Your task to perform on an android device: Open Chrome and go to settings Image 0: 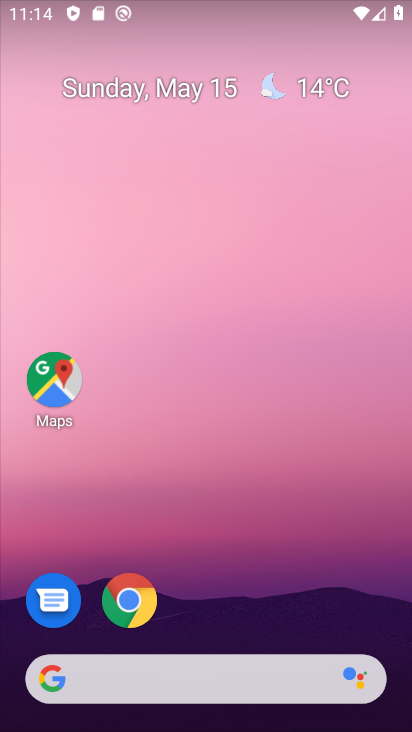
Step 0: click (129, 604)
Your task to perform on an android device: Open Chrome and go to settings Image 1: 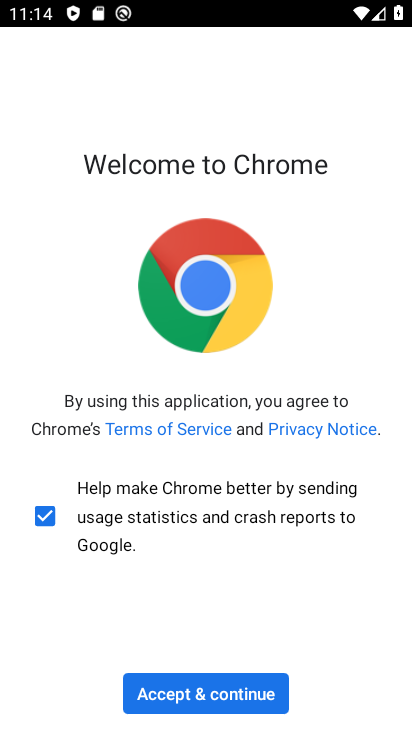
Step 1: click (206, 690)
Your task to perform on an android device: Open Chrome and go to settings Image 2: 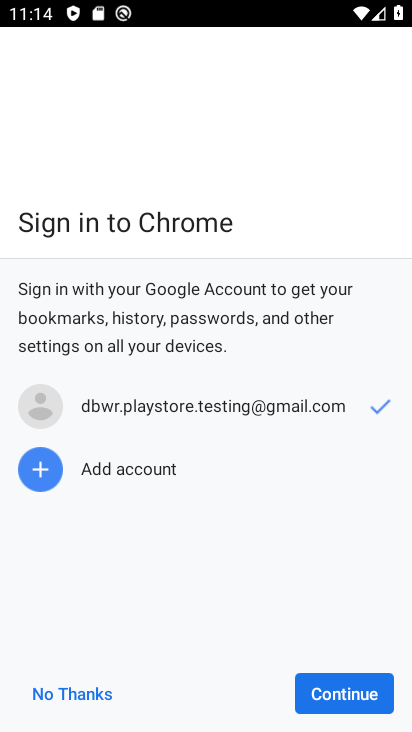
Step 2: click (344, 694)
Your task to perform on an android device: Open Chrome and go to settings Image 3: 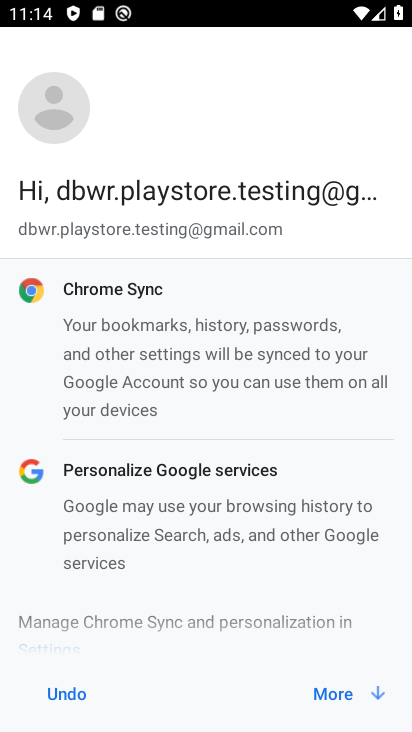
Step 3: click (344, 694)
Your task to perform on an android device: Open Chrome and go to settings Image 4: 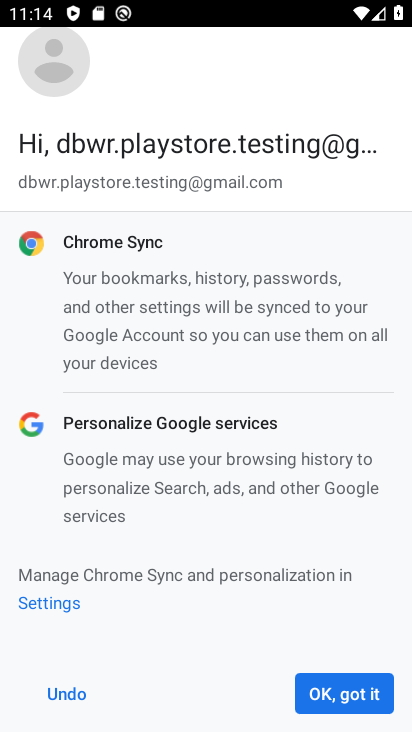
Step 4: click (344, 694)
Your task to perform on an android device: Open Chrome and go to settings Image 5: 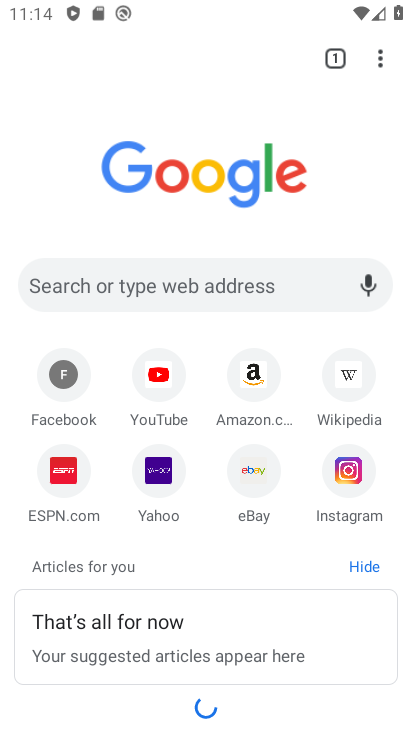
Step 5: click (380, 59)
Your task to perform on an android device: Open Chrome and go to settings Image 6: 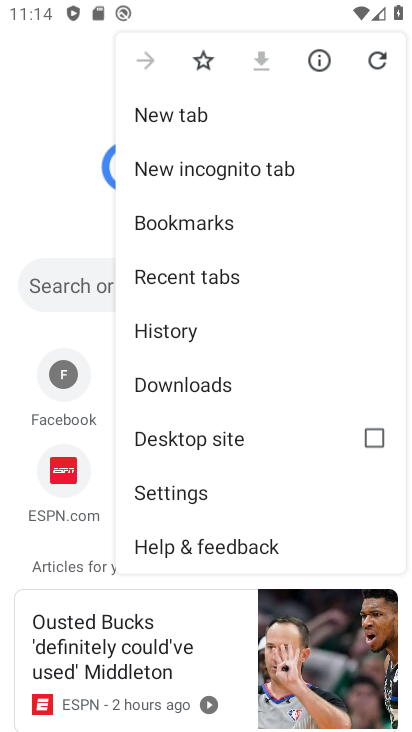
Step 6: click (163, 490)
Your task to perform on an android device: Open Chrome and go to settings Image 7: 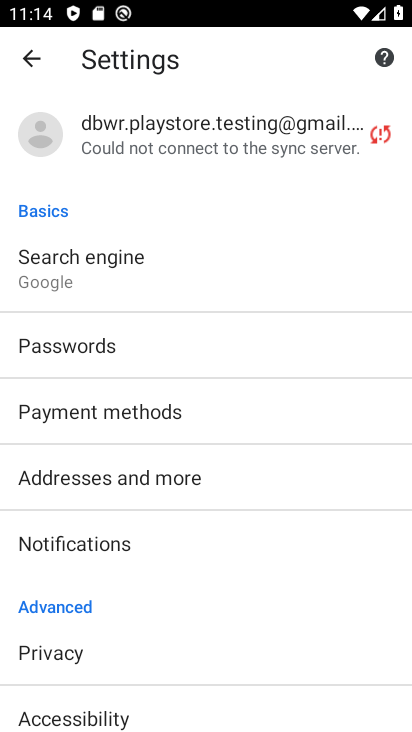
Step 7: task complete